Your task to perform on an android device: turn off location history Image 0: 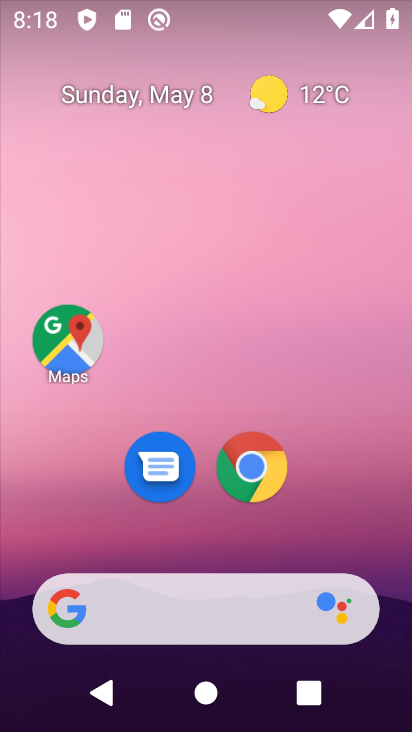
Step 0: drag from (207, 538) to (285, 57)
Your task to perform on an android device: turn off location history Image 1: 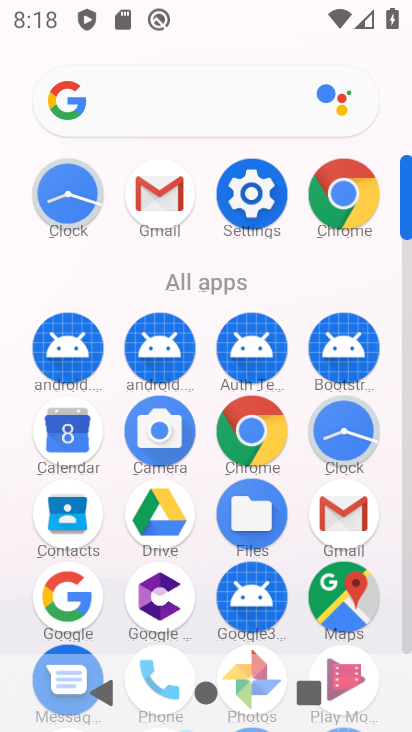
Step 1: click (258, 192)
Your task to perform on an android device: turn off location history Image 2: 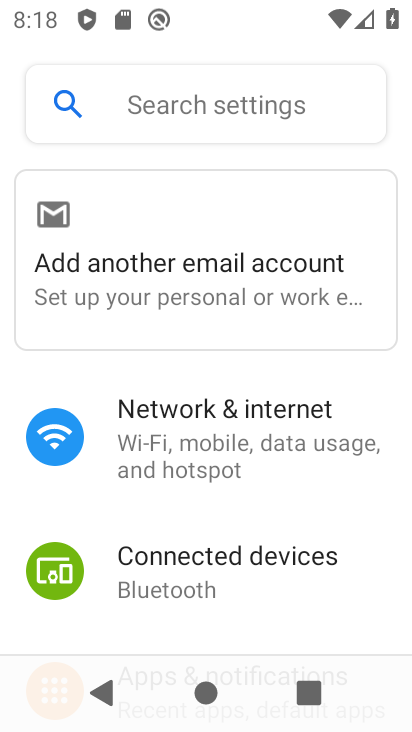
Step 2: drag from (204, 586) to (299, 204)
Your task to perform on an android device: turn off location history Image 3: 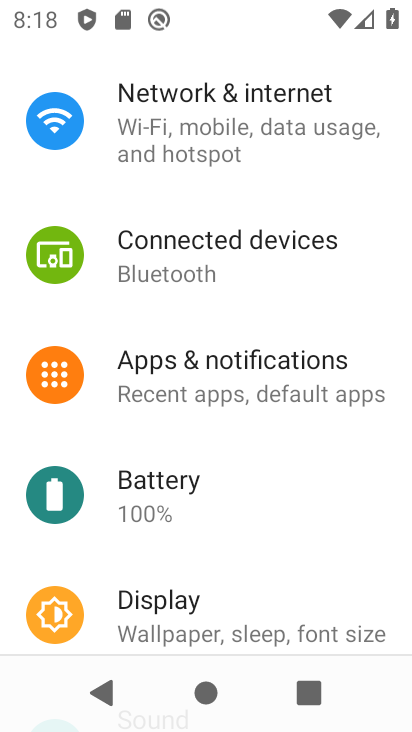
Step 3: drag from (190, 584) to (247, 229)
Your task to perform on an android device: turn off location history Image 4: 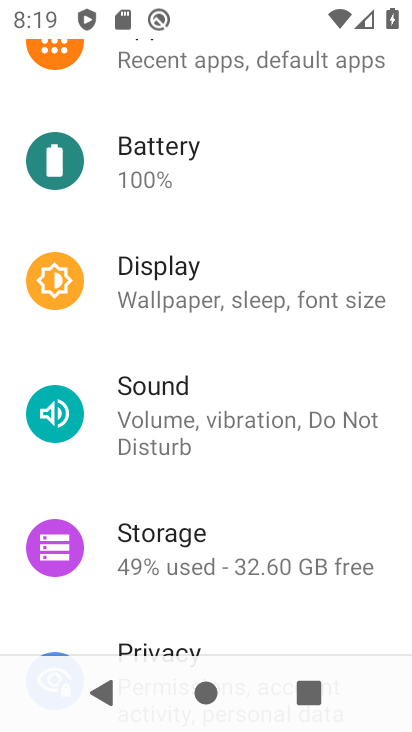
Step 4: drag from (195, 559) to (283, 187)
Your task to perform on an android device: turn off location history Image 5: 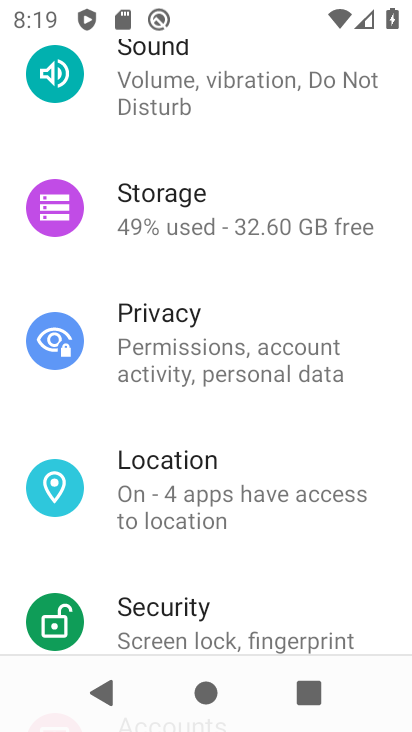
Step 5: click (166, 481)
Your task to perform on an android device: turn off location history Image 6: 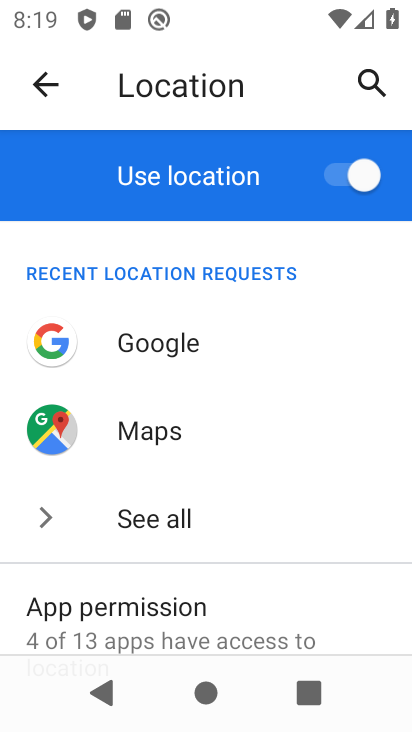
Step 6: drag from (152, 624) to (285, 166)
Your task to perform on an android device: turn off location history Image 7: 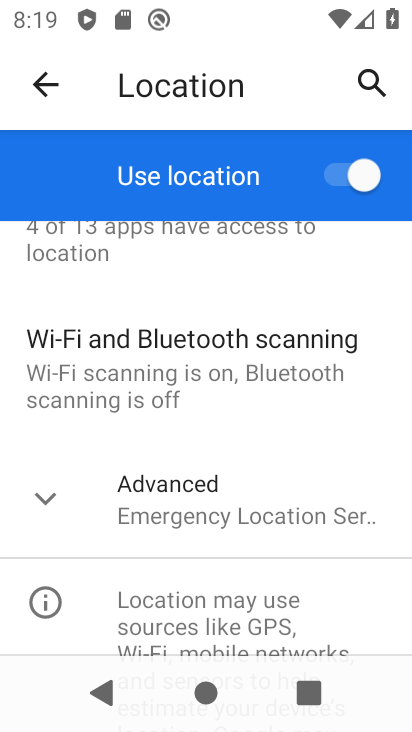
Step 7: click (258, 515)
Your task to perform on an android device: turn off location history Image 8: 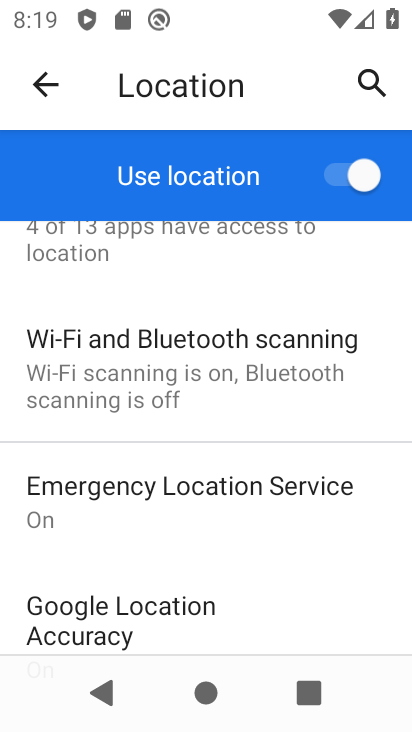
Step 8: drag from (194, 605) to (292, 185)
Your task to perform on an android device: turn off location history Image 9: 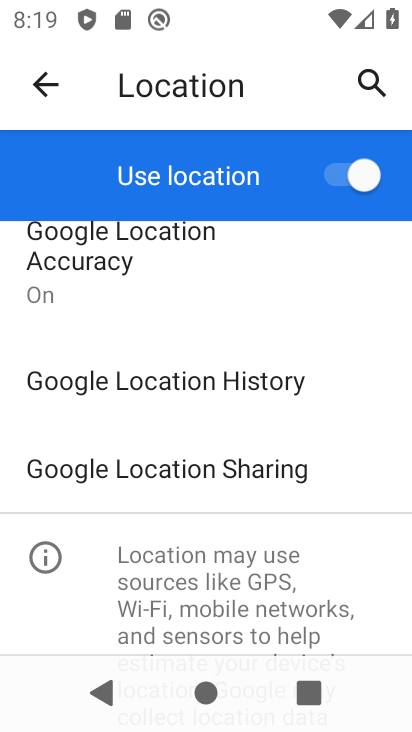
Step 9: click (207, 378)
Your task to perform on an android device: turn off location history Image 10: 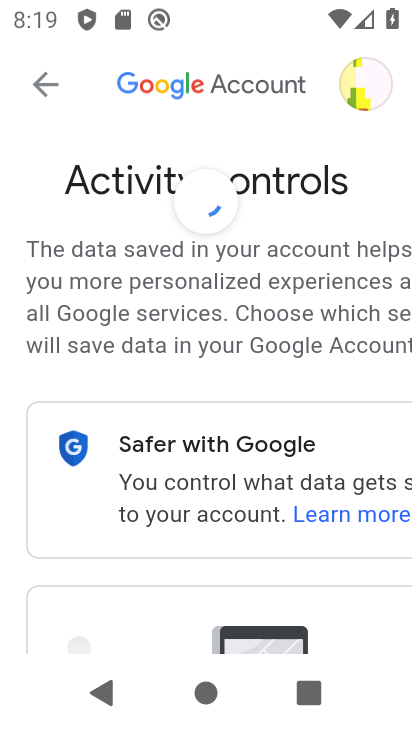
Step 10: task complete